Your task to perform on an android device: turn smart compose on in the gmail app Image 0: 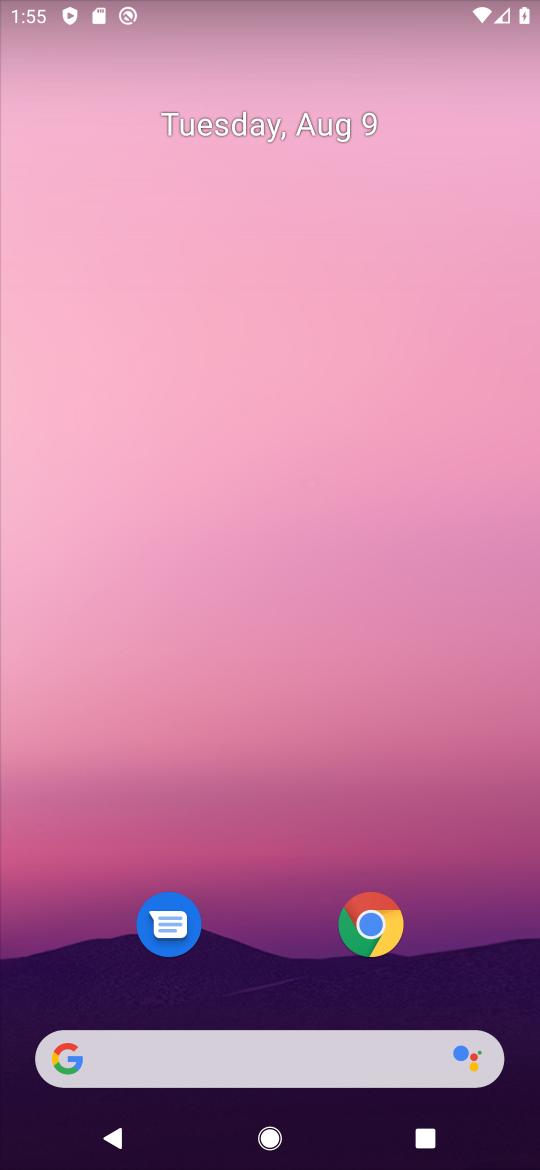
Step 0: drag from (527, 1106) to (259, 113)
Your task to perform on an android device: turn smart compose on in the gmail app Image 1: 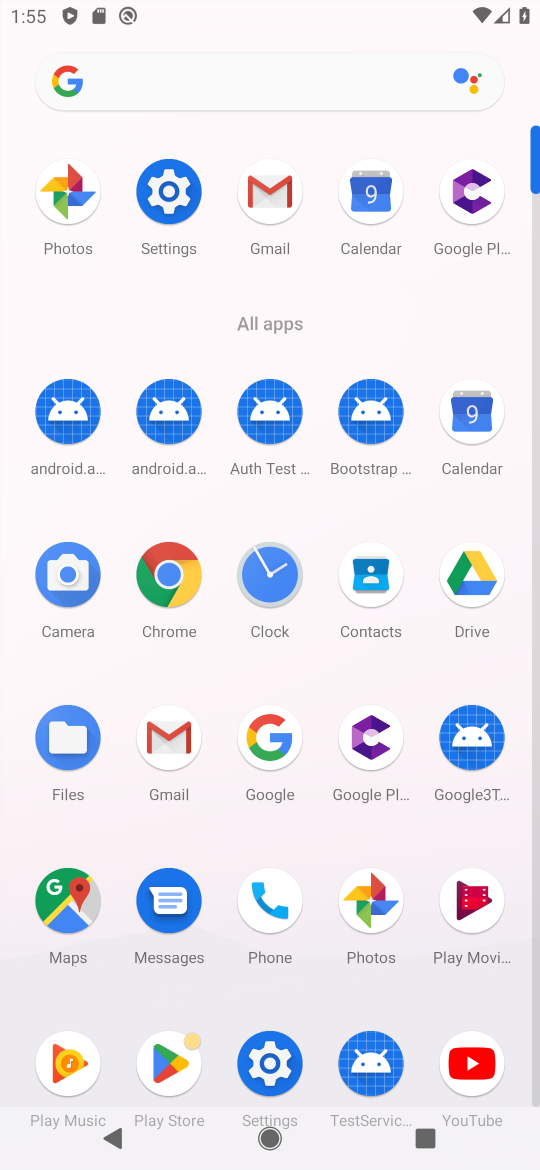
Step 1: click (163, 735)
Your task to perform on an android device: turn smart compose on in the gmail app Image 2: 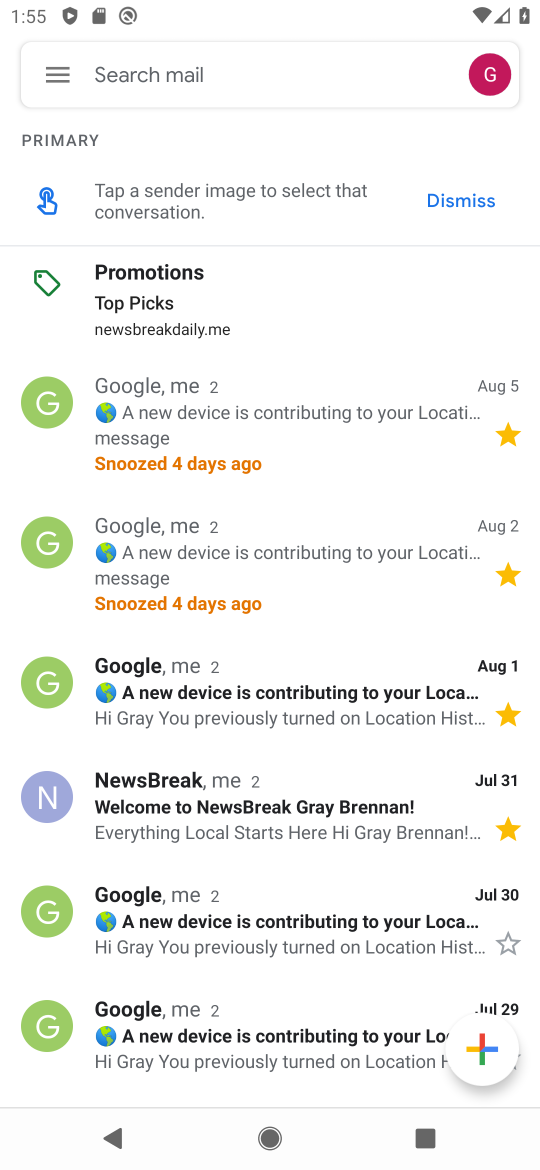
Step 2: click (60, 80)
Your task to perform on an android device: turn smart compose on in the gmail app Image 3: 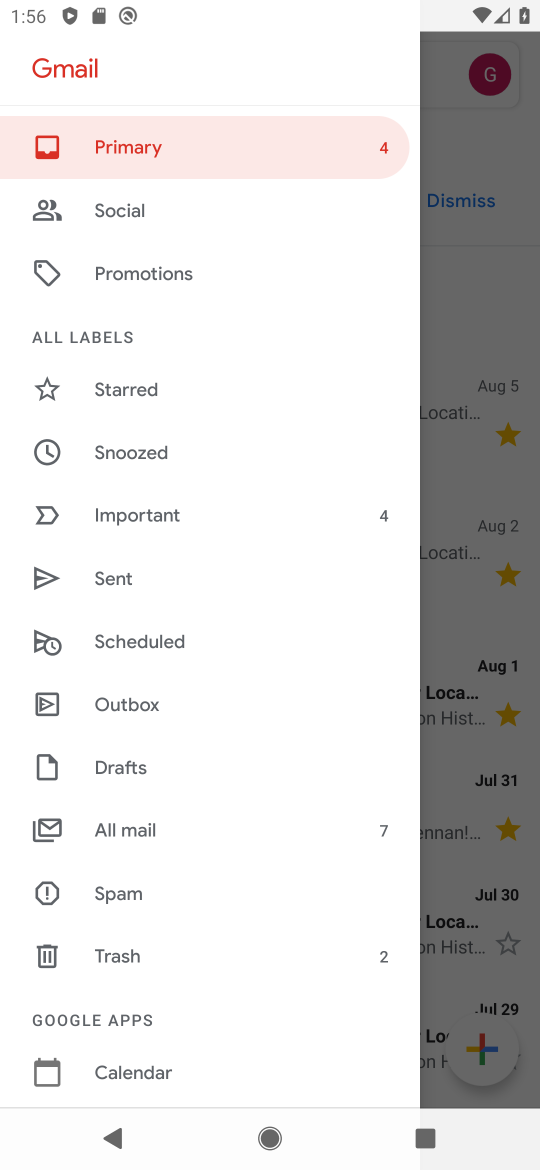
Step 3: drag from (231, 924) to (196, 637)
Your task to perform on an android device: turn smart compose on in the gmail app Image 4: 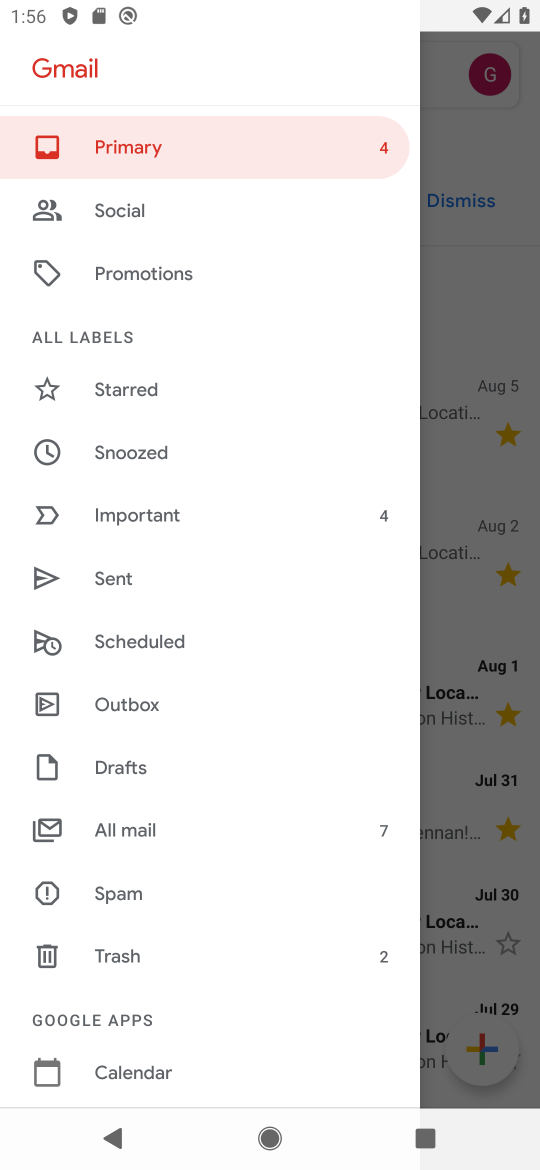
Step 4: drag from (219, 949) to (183, 641)
Your task to perform on an android device: turn smart compose on in the gmail app Image 5: 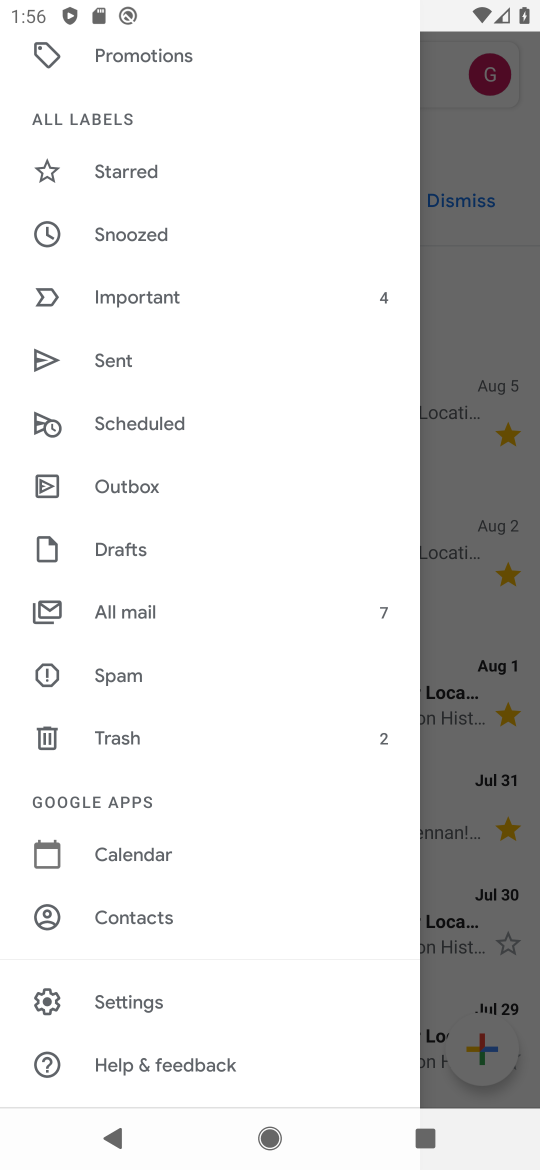
Step 5: click (133, 997)
Your task to perform on an android device: turn smart compose on in the gmail app Image 6: 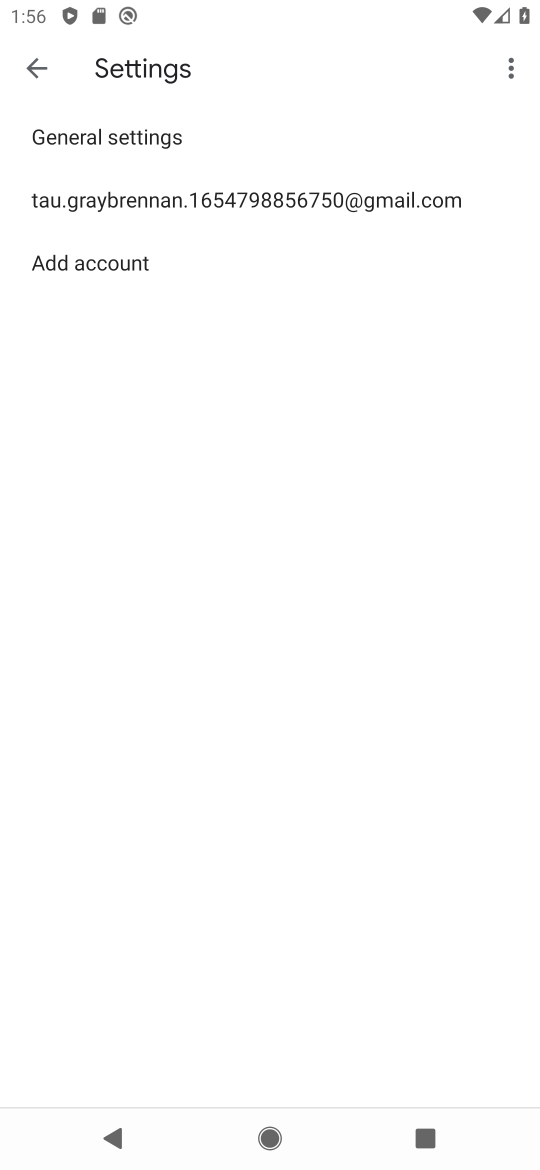
Step 6: click (228, 193)
Your task to perform on an android device: turn smart compose on in the gmail app Image 7: 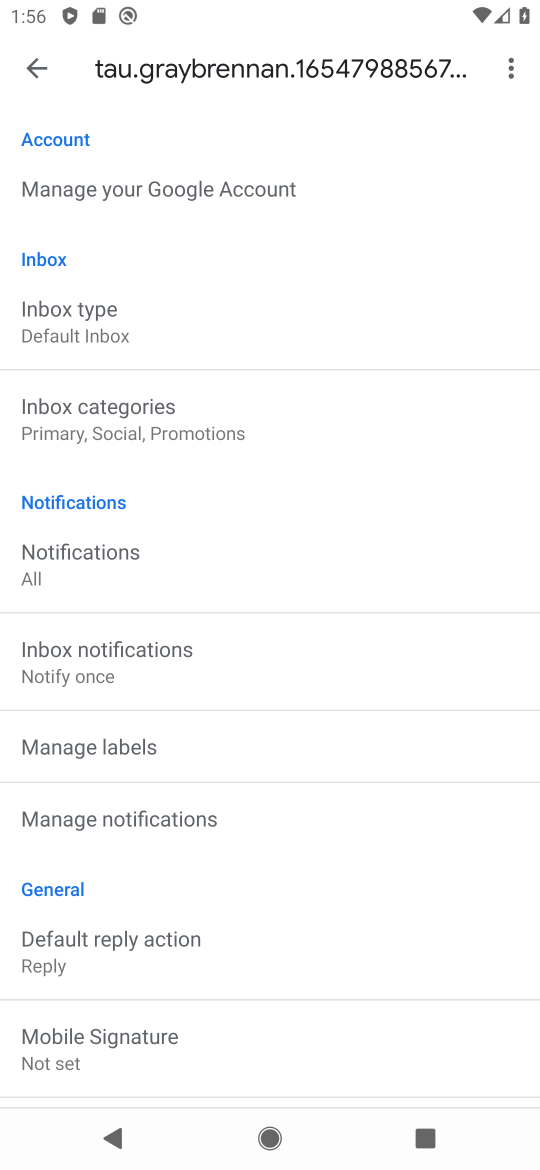
Step 7: task complete